Your task to perform on an android device: change notifications settings Image 0: 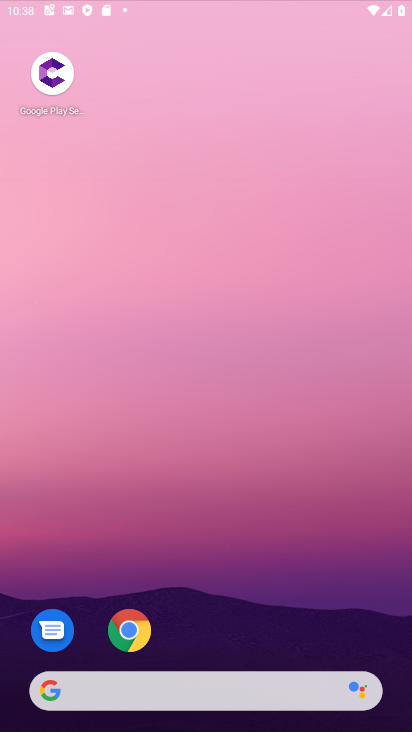
Step 0: click (293, 695)
Your task to perform on an android device: change notifications settings Image 1: 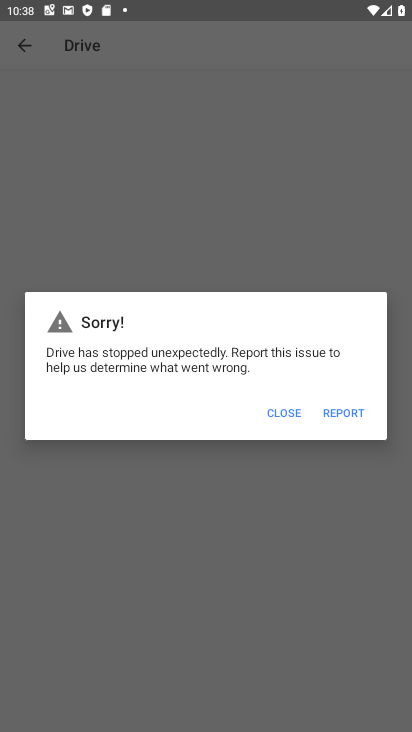
Step 1: press home button
Your task to perform on an android device: change notifications settings Image 2: 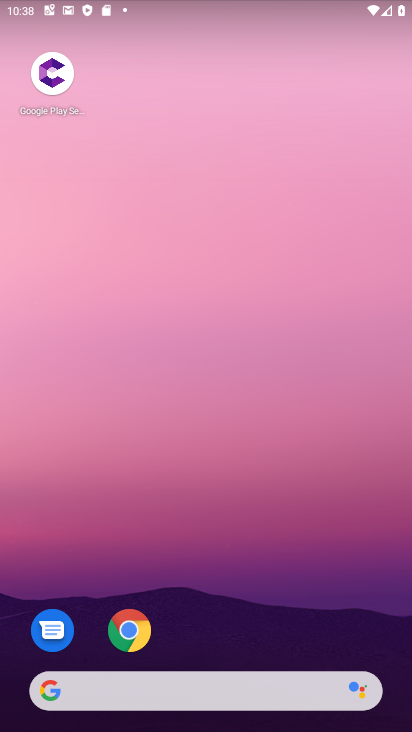
Step 2: drag from (231, 621) to (279, 1)
Your task to perform on an android device: change notifications settings Image 3: 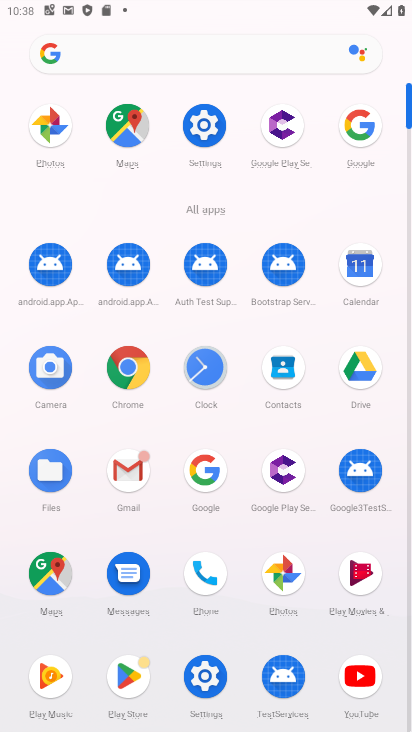
Step 3: click (202, 123)
Your task to perform on an android device: change notifications settings Image 4: 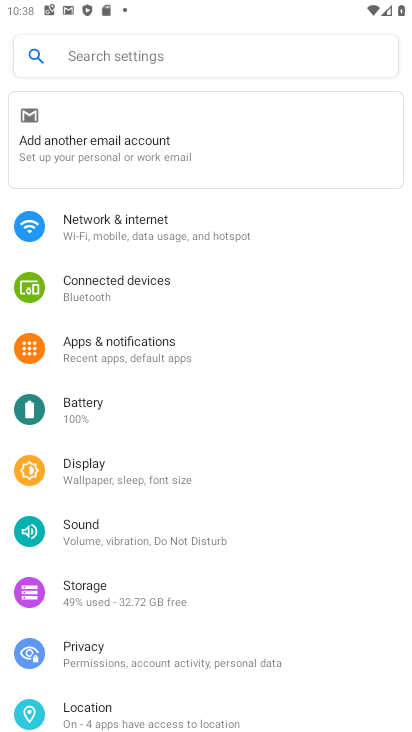
Step 4: click (165, 344)
Your task to perform on an android device: change notifications settings Image 5: 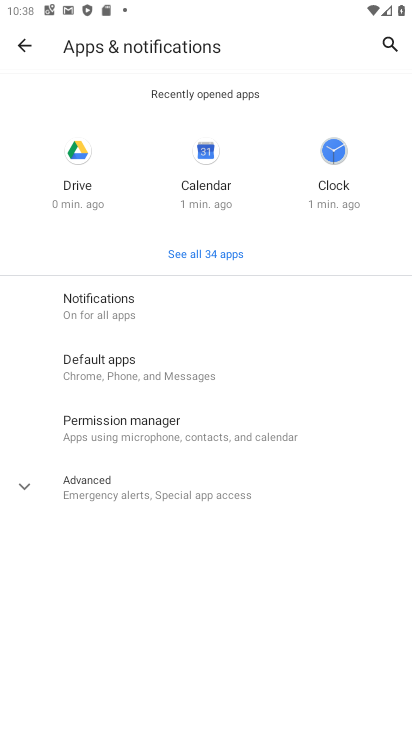
Step 5: click (123, 304)
Your task to perform on an android device: change notifications settings Image 6: 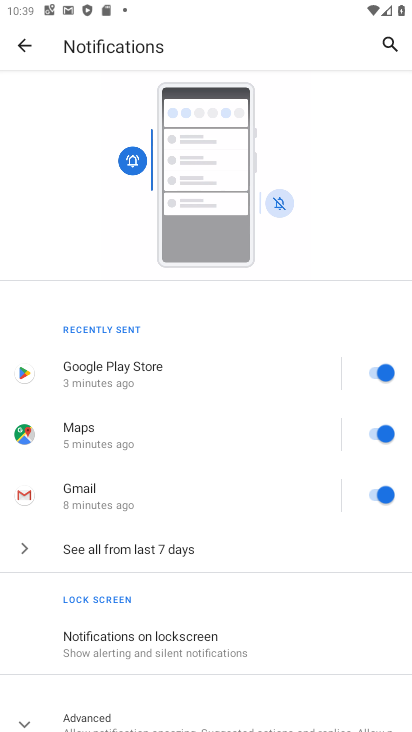
Step 6: click (122, 551)
Your task to perform on an android device: change notifications settings Image 7: 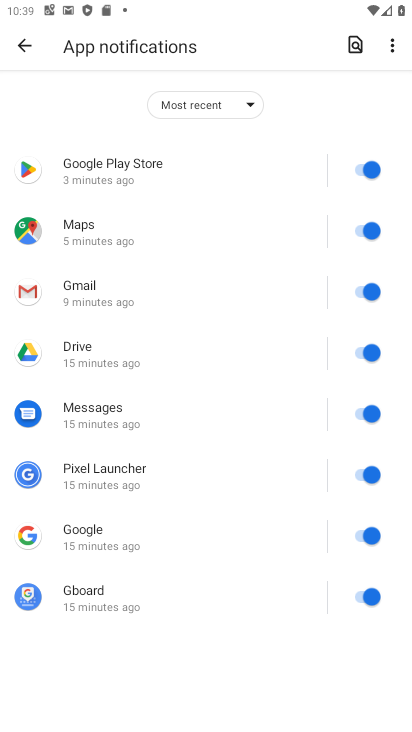
Step 7: click (375, 169)
Your task to perform on an android device: change notifications settings Image 8: 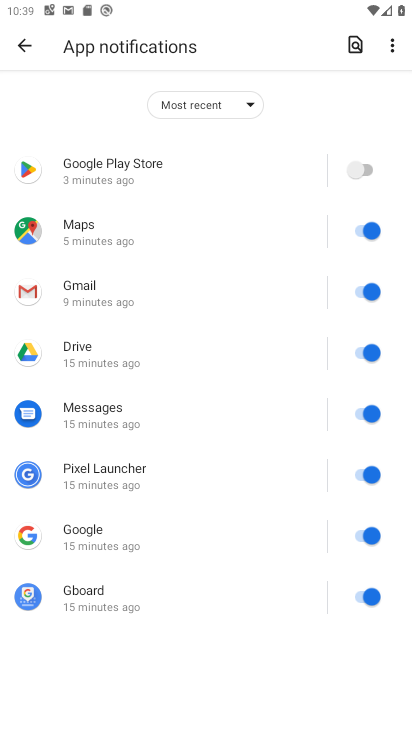
Step 8: click (371, 224)
Your task to perform on an android device: change notifications settings Image 9: 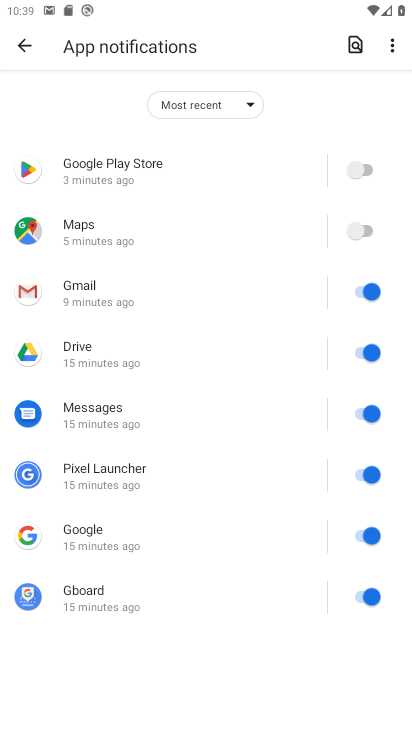
Step 9: click (364, 281)
Your task to perform on an android device: change notifications settings Image 10: 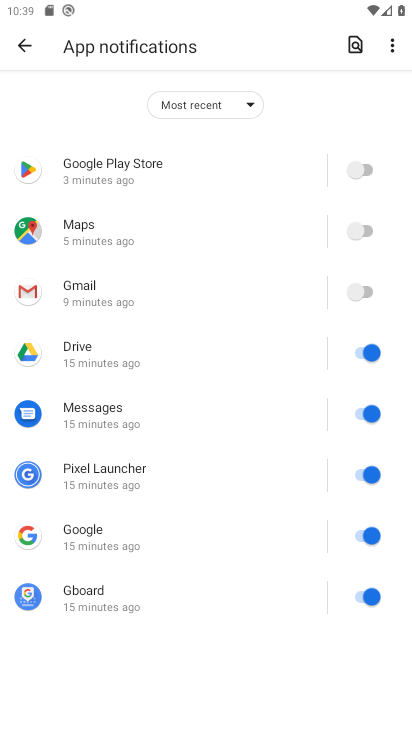
Step 10: click (364, 351)
Your task to perform on an android device: change notifications settings Image 11: 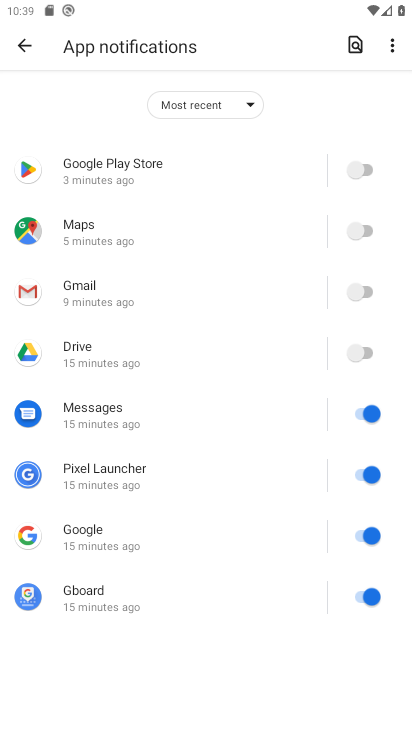
Step 11: click (371, 416)
Your task to perform on an android device: change notifications settings Image 12: 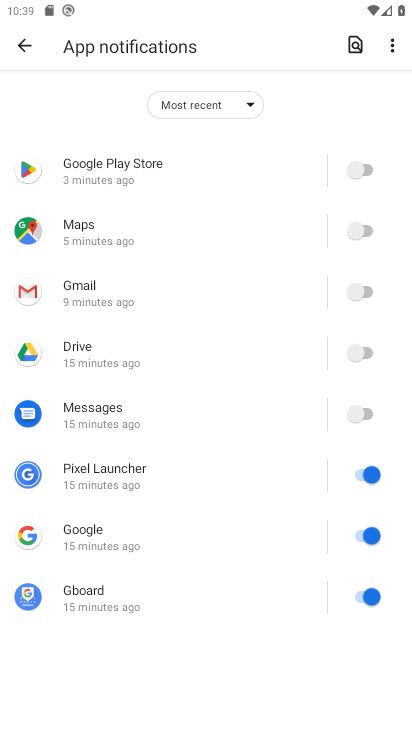
Step 12: click (379, 475)
Your task to perform on an android device: change notifications settings Image 13: 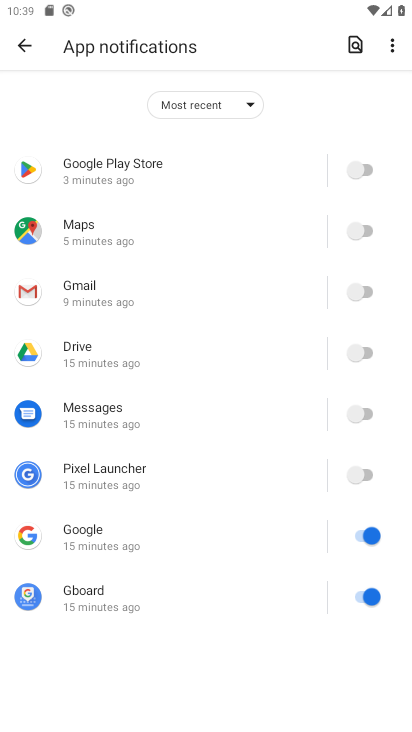
Step 13: click (374, 538)
Your task to perform on an android device: change notifications settings Image 14: 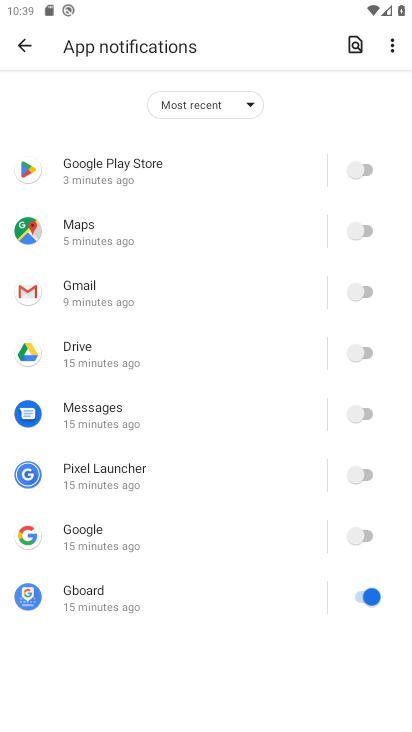
Step 14: click (371, 595)
Your task to perform on an android device: change notifications settings Image 15: 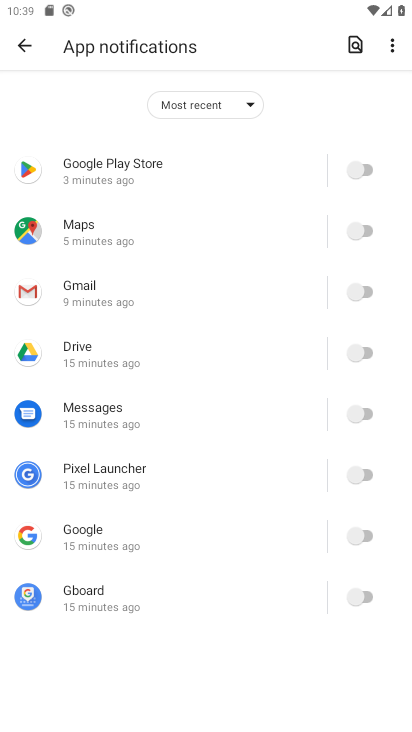
Step 15: task complete